Your task to perform on an android device: open app "AliExpress" Image 0: 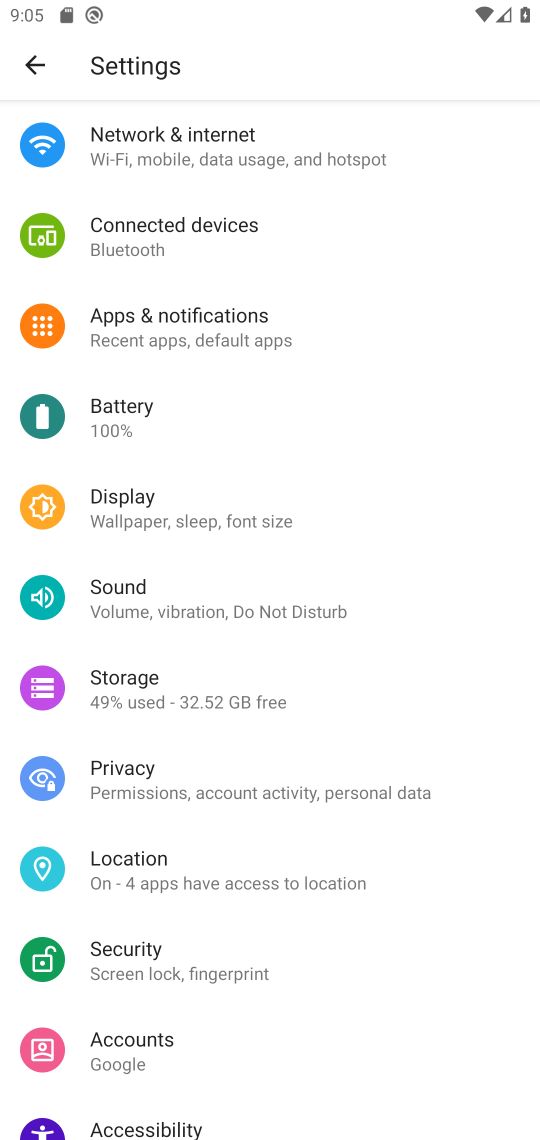
Step 0: press home button
Your task to perform on an android device: open app "AliExpress" Image 1: 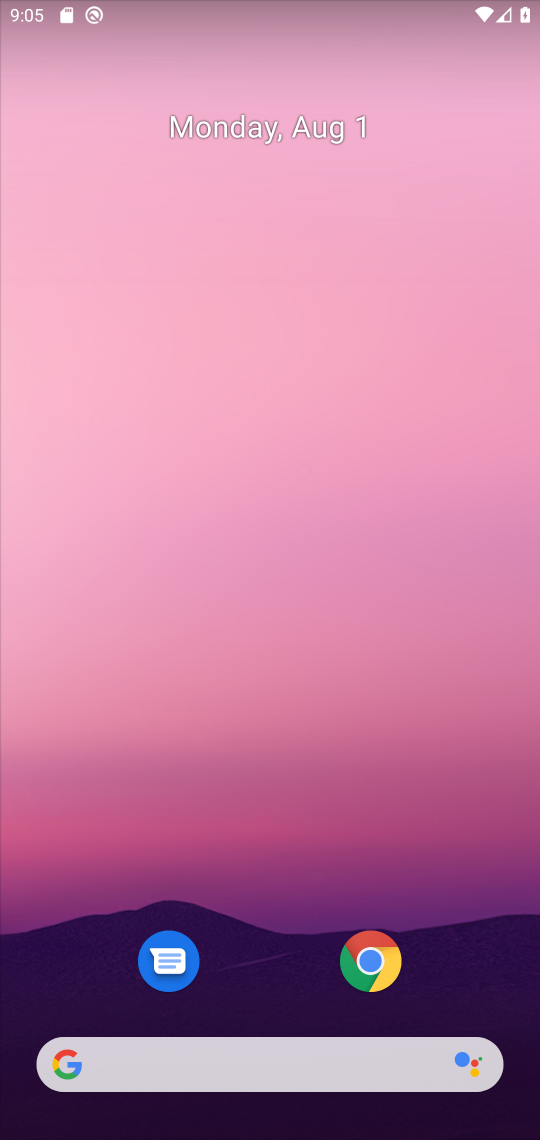
Step 1: drag from (456, 848) to (362, 130)
Your task to perform on an android device: open app "AliExpress" Image 2: 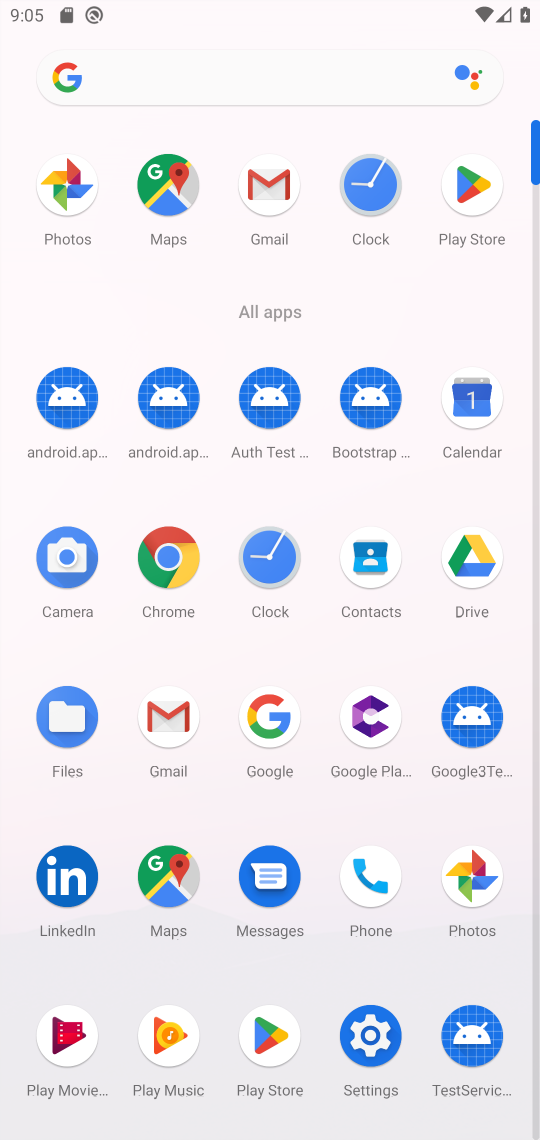
Step 2: click (473, 193)
Your task to perform on an android device: open app "AliExpress" Image 3: 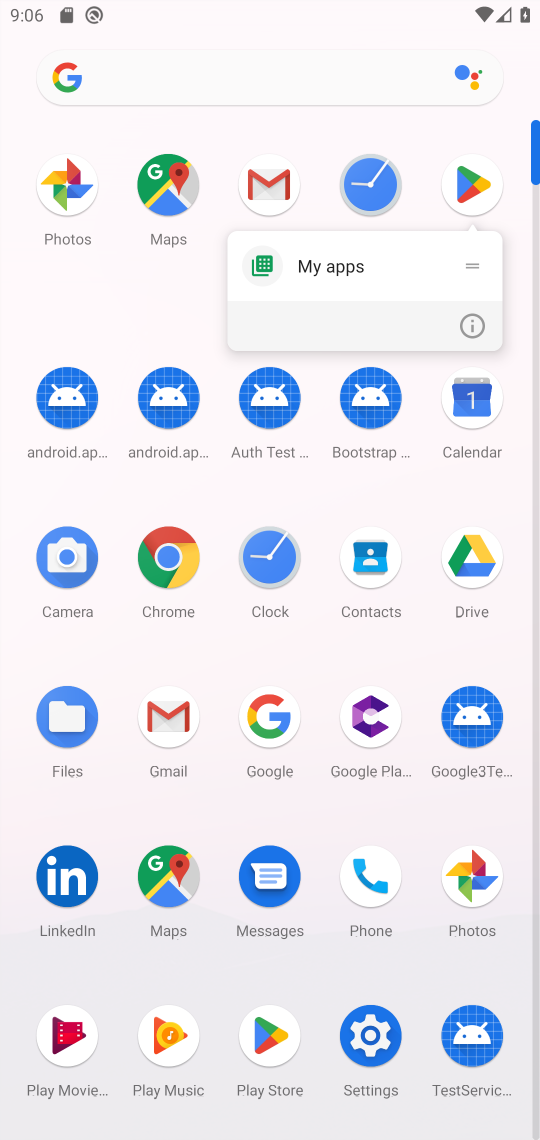
Step 3: click (461, 173)
Your task to perform on an android device: open app "AliExpress" Image 4: 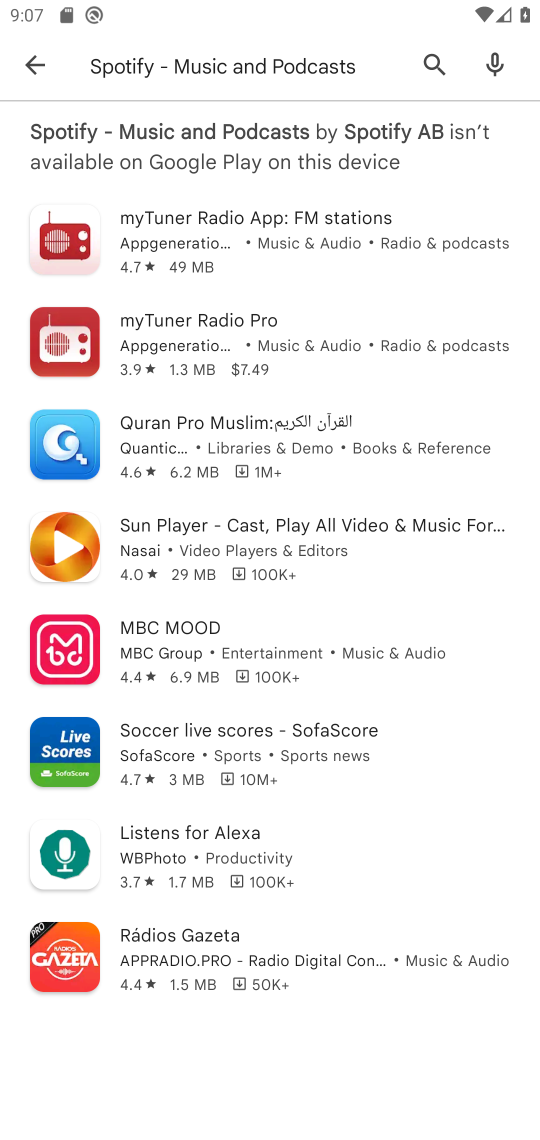
Step 4: click (39, 68)
Your task to perform on an android device: open app "AliExpress" Image 5: 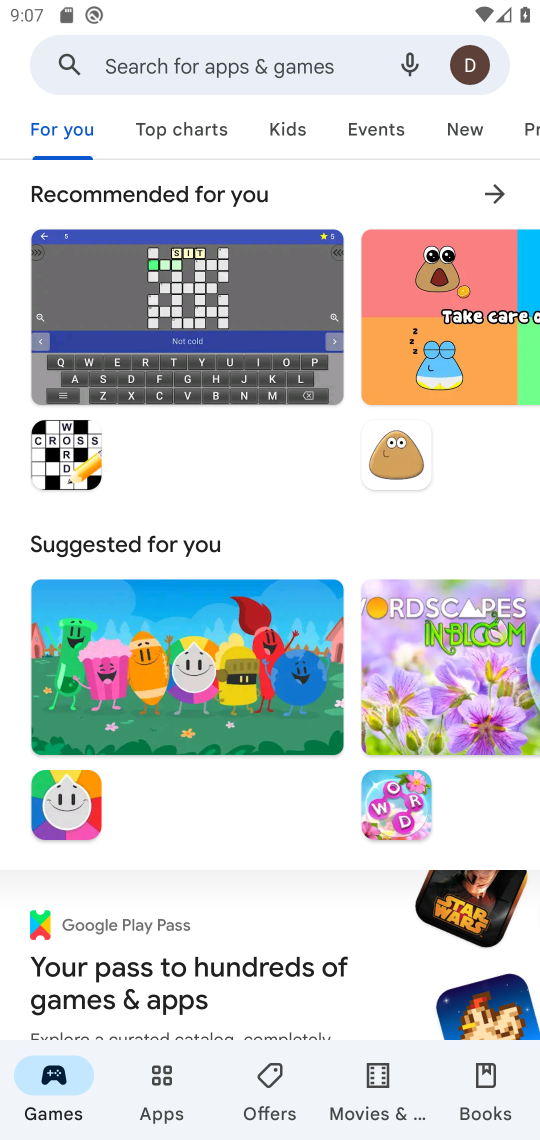
Step 5: click (229, 74)
Your task to perform on an android device: open app "AliExpress" Image 6: 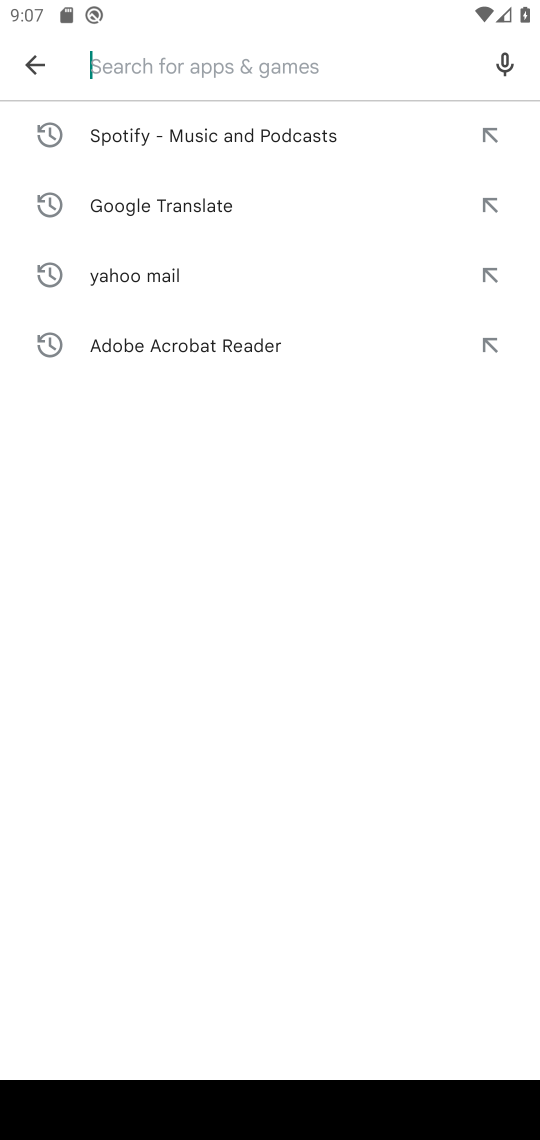
Step 6: type "AliExpress""
Your task to perform on an android device: open app "AliExpress" Image 7: 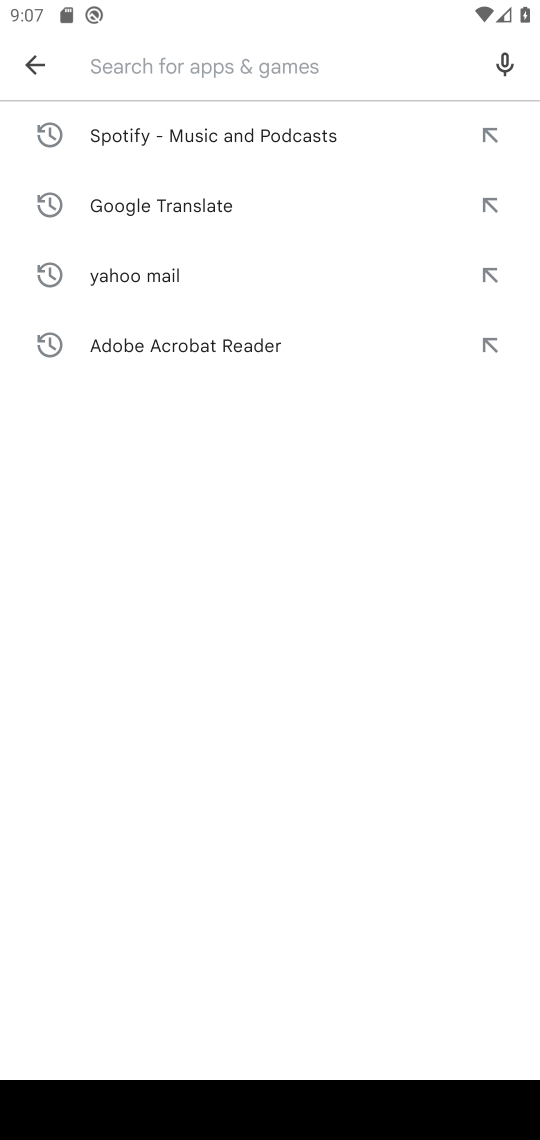
Step 7: press enter
Your task to perform on an android device: open app "AliExpress" Image 8: 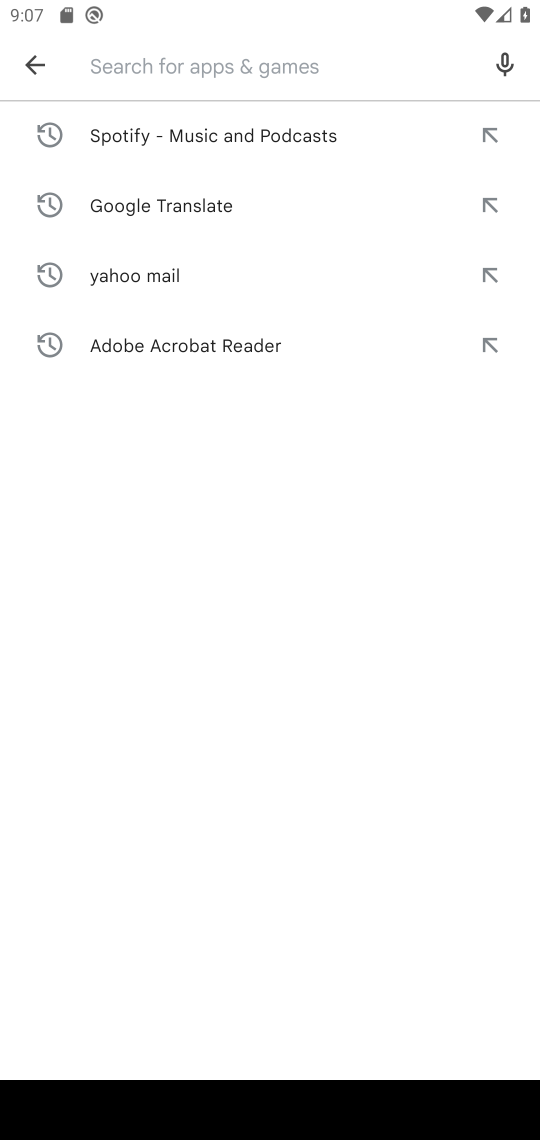
Step 8: type "AliExpress"
Your task to perform on an android device: open app "AliExpress" Image 9: 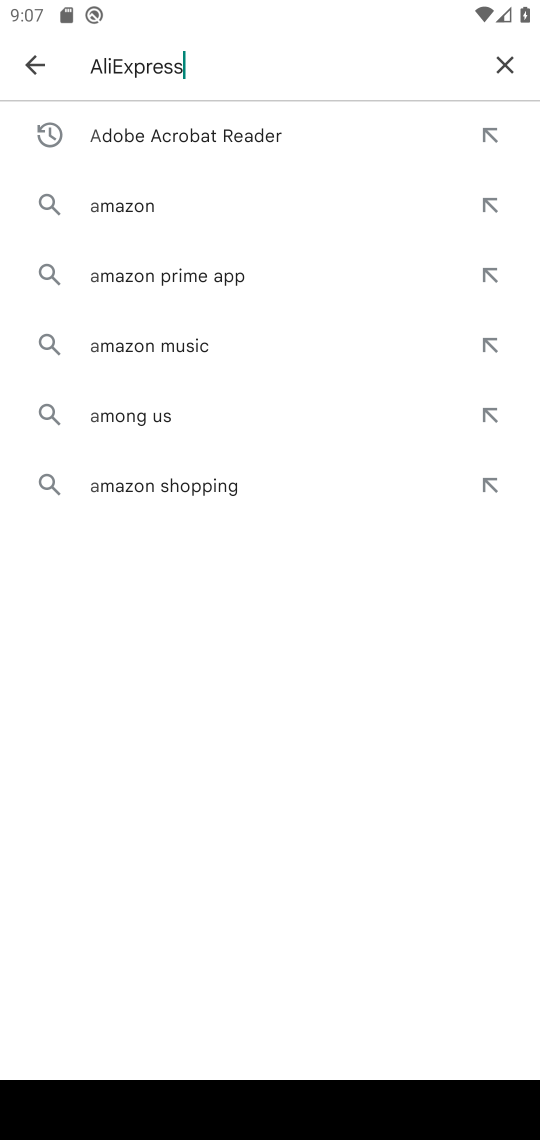
Step 9: press enter
Your task to perform on an android device: open app "AliExpress" Image 10: 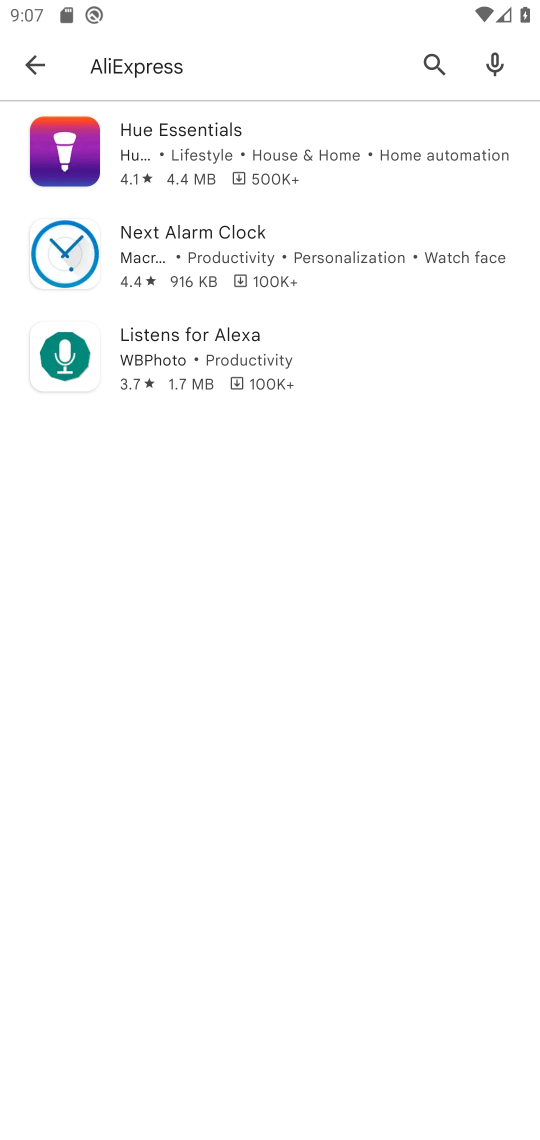
Step 10: task complete